Your task to perform on an android device: turn off notifications settings in the gmail app Image 0: 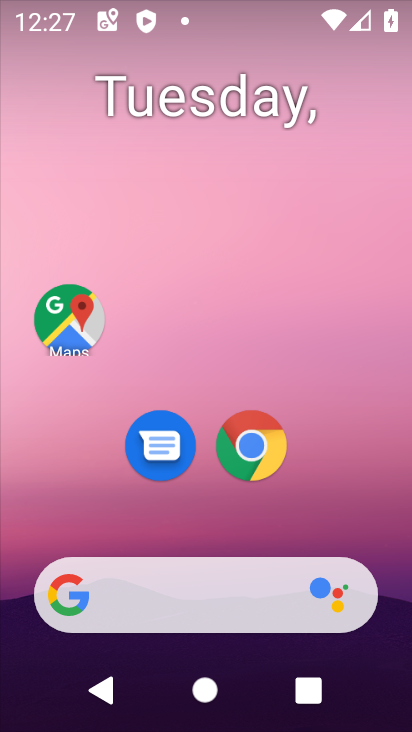
Step 0: drag from (328, 475) to (257, 11)
Your task to perform on an android device: turn off notifications settings in the gmail app Image 1: 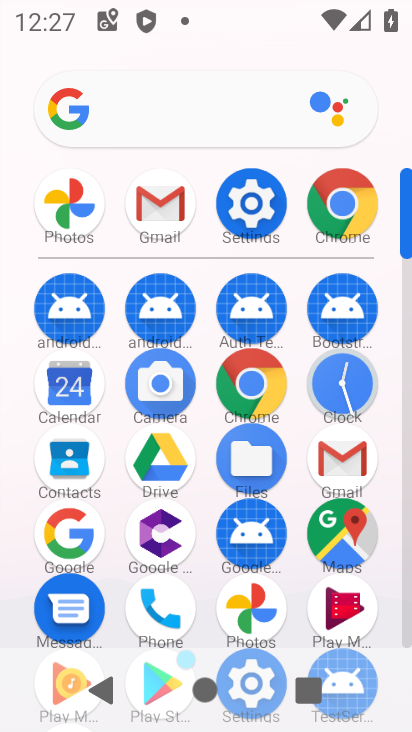
Step 1: click (156, 225)
Your task to perform on an android device: turn off notifications settings in the gmail app Image 2: 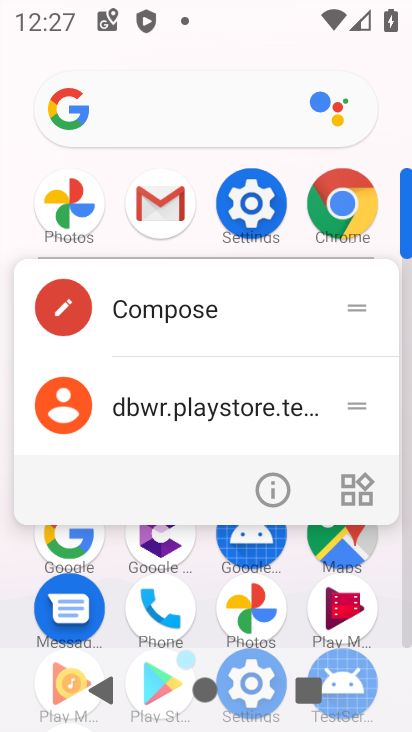
Step 2: click (156, 208)
Your task to perform on an android device: turn off notifications settings in the gmail app Image 3: 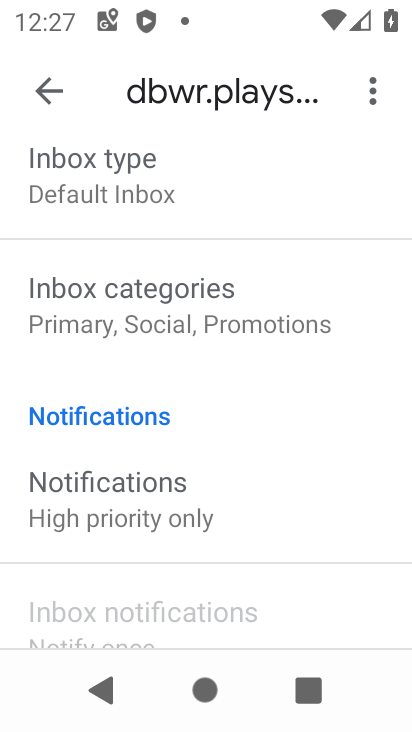
Step 3: click (145, 522)
Your task to perform on an android device: turn off notifications settings in the gmail app Image 4: 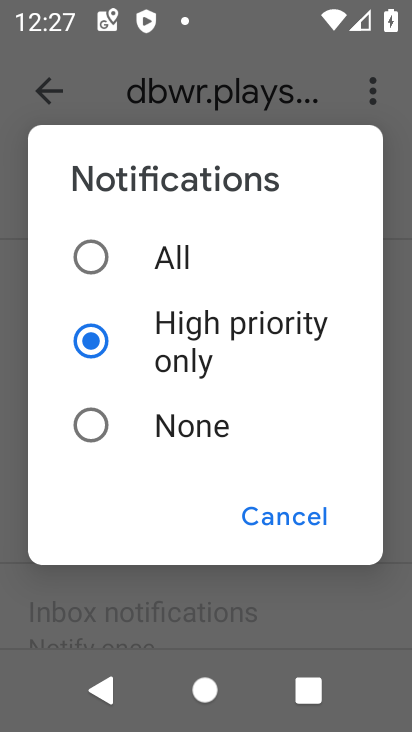
Step 4: click (155, 446)
Your task to perform on an android device: turn off notifications settings in the gmail app Image 5: 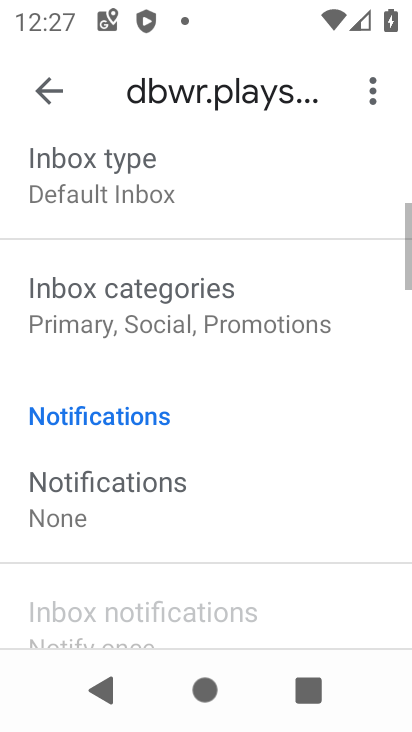
Step 5: task complete